Your task to perform on an android device: turn off translation in the chrome app Image 0: 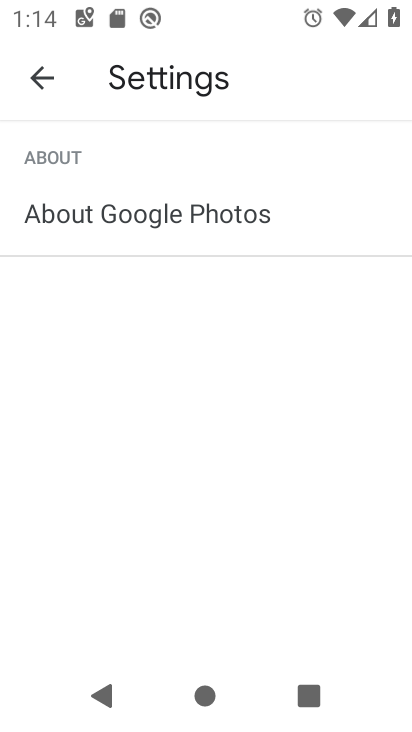
Step 0: press home button
Your task to perform on an android device: turn off translation in the chrome app Image 1: 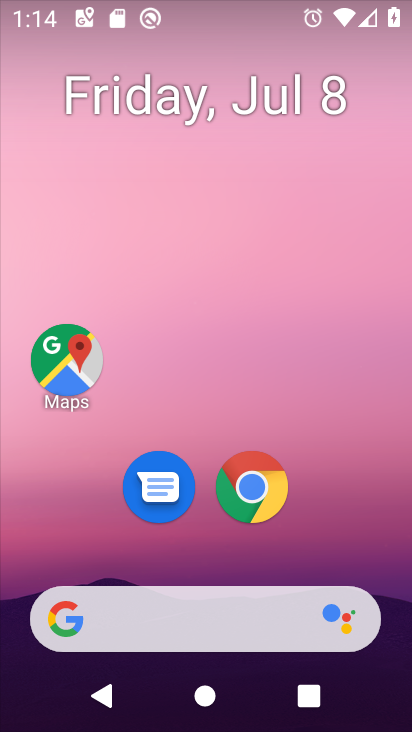
Step 1: drag from (367, 527) to (379, 118)
Your task to perform on an android device: turn off translation in the chrome app Image 2: 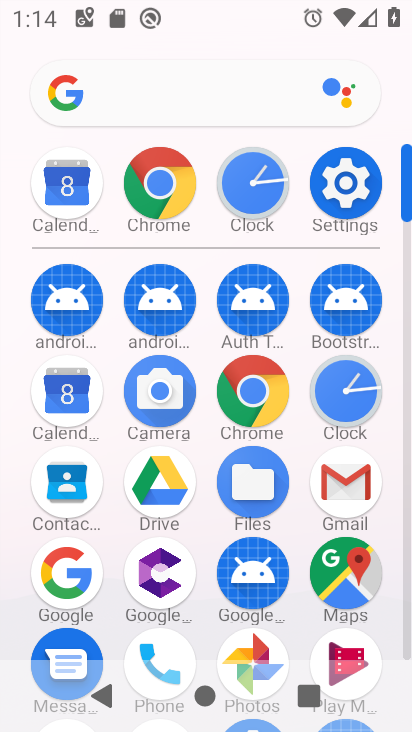
Step 2: click (261, 389)
Your task to perform on an android device: turn off translation in the chrome app Image 3: 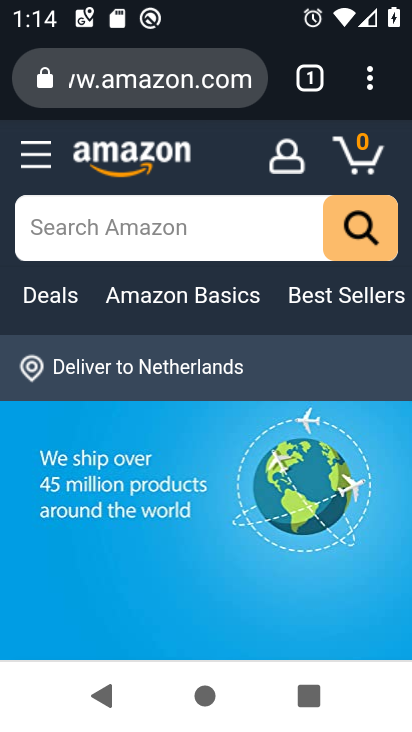
Step 3: click (370, 88)
Your task to perform on an android device: turn off translation in the chrome app Image 4: 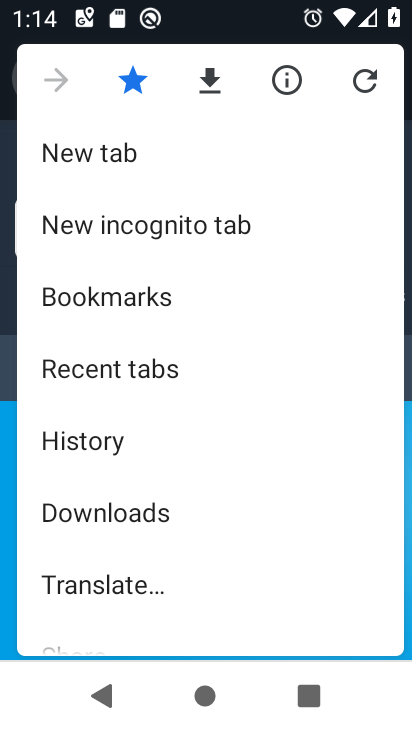
Step 4: drag from (311, 453) to (327, 361)
Your task to perform on an android device: turn off translation in the chrome app Image 5: 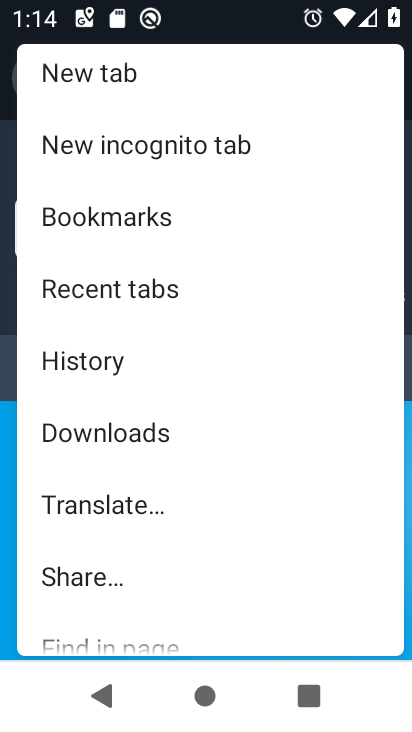
Step 5: drag from (326, 500) to (324, 416)
Your task to perform on an android device: turn off translation in the chrome app Image 6: 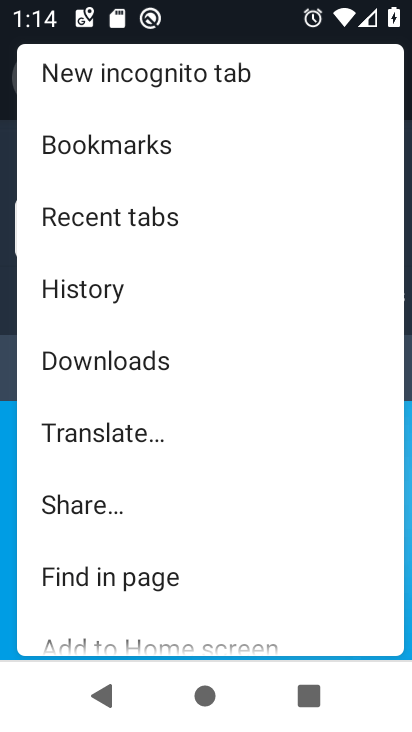
Step 6: drag from (315, 516) to (318, 409)
Your task to perform on an android device: turn off translation in the chrome app Image 7: 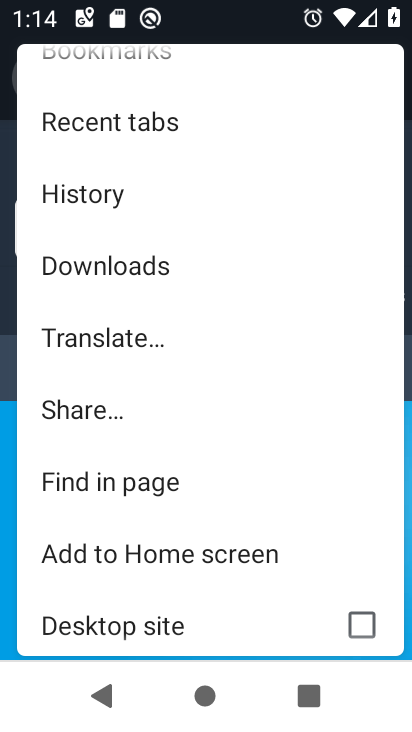
Step 7: drag from (309, 491) to (311, 373)
Your task to perform on an android device: turn off translation in the chrome app Image 8: 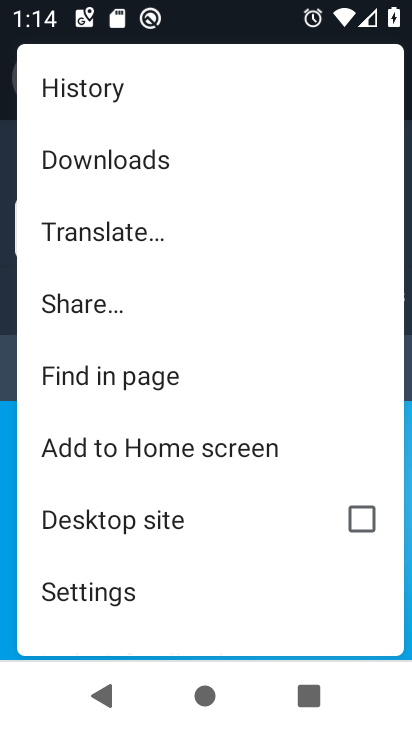
Step 8: drag from (292, 525) to (290, 393)
Your task to perform on an android device: turn off translation in the chrome app Image 9: 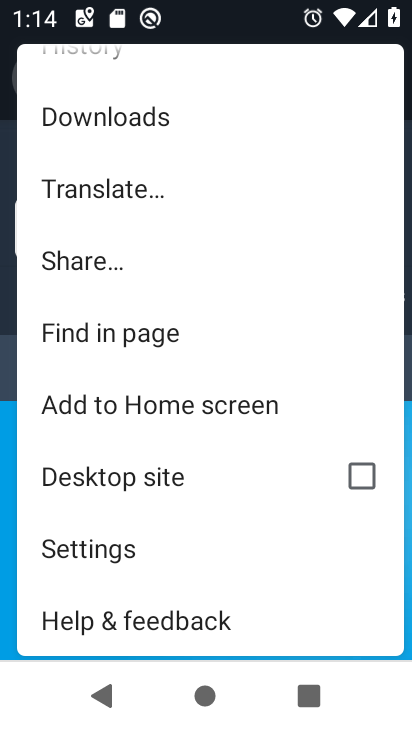
Step 9: click (241, 559)
Your task to perform on an android device: turn off translation in the chrome app Image 10: 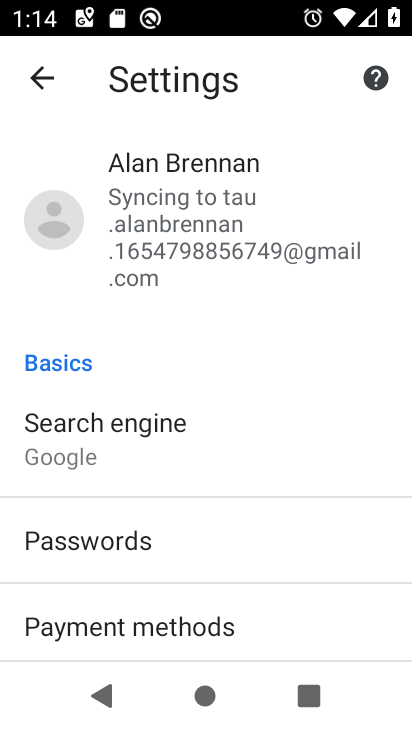
Step 10: drag from (348, 533) to (356, 437)
Your task to perform on an android device: turn off translation in the chrome app Image 11: 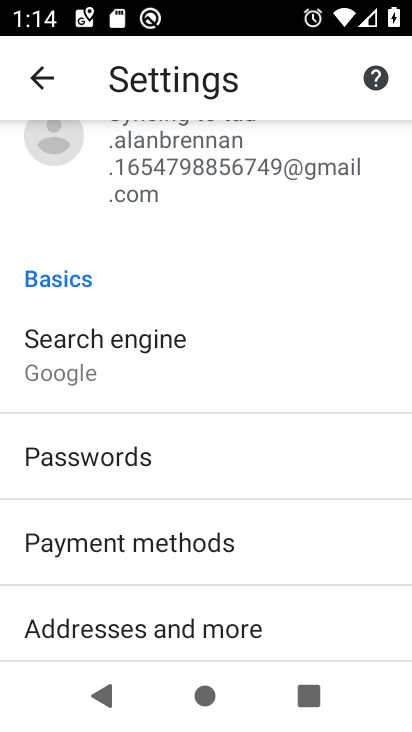
Step 11: drag from (338, 565) to (336, 450)
Your task to perform on an android device: turn off translation in the chrome app Image 12: 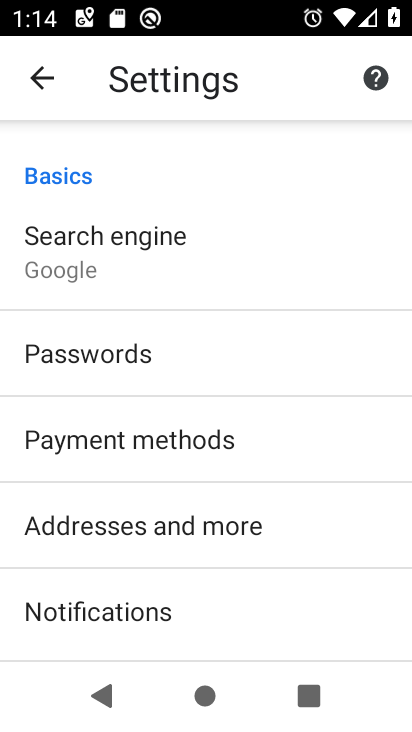
Step 12: drag from (316, 572) to (309, 457)
Your task to perform on an android device: turn off translation in the chrome app Image 13: 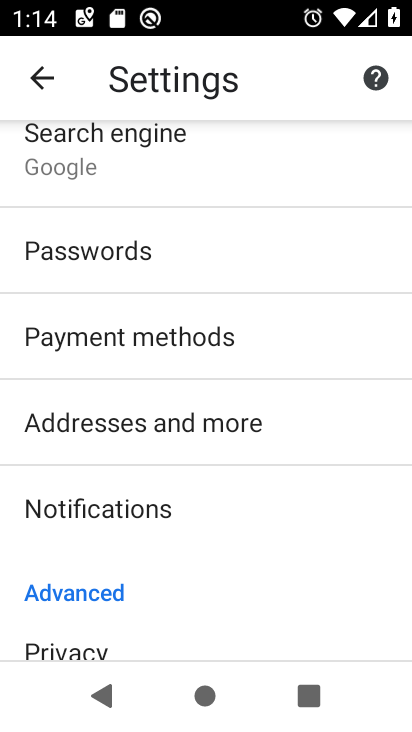
Step 13: drag from (307, 498) to (322, 407)
Your task to perform on an android device: turn off translation in the chrome app Image 14: 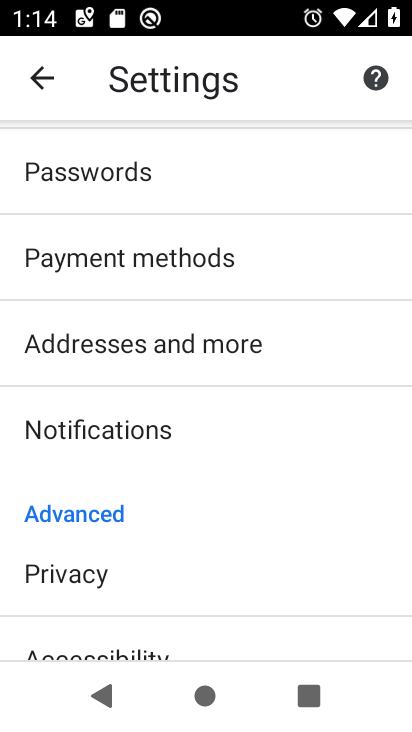
Step 14: drag from (329, 518) to (324, 367)
Your task to perform on an android device: turn off translation in the chrome app Image 15: 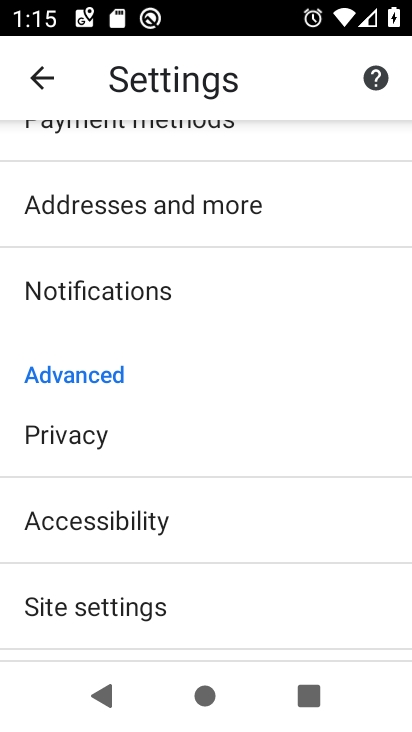
Step 15: drag from (324, 419) to (323, 317)
Your task to perform on an android device: turn off translation in the chrome app Image 16: 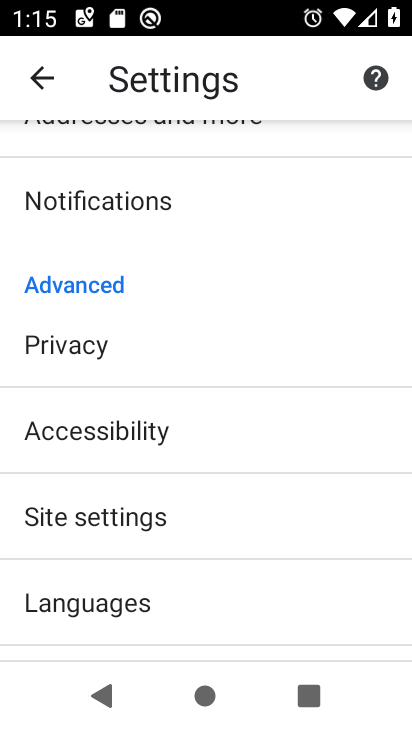
Step 16: drag from (262, 566) to (273, 407)
Your task to perform on an android device: turn off translation in the chrome app Image 17: 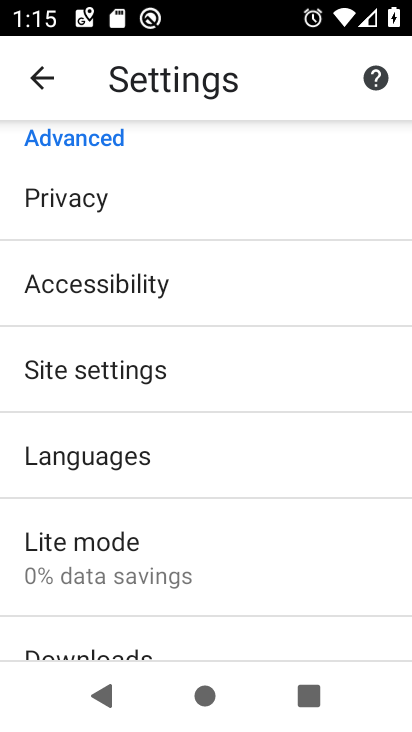
Step 17: drag from (310, 550) to (325, 412)
Your task to perform on an android device: turn off translation in the chrome app Image 18: 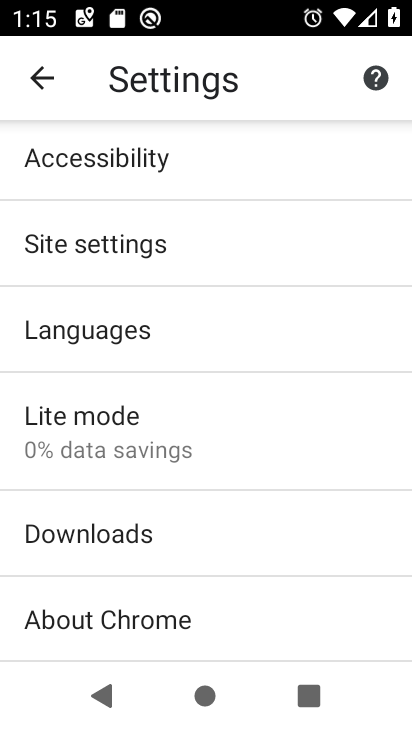
Step 18: click (187, 334)
Your task to perform on an android device: turn off translation in the chrome app Image 19: 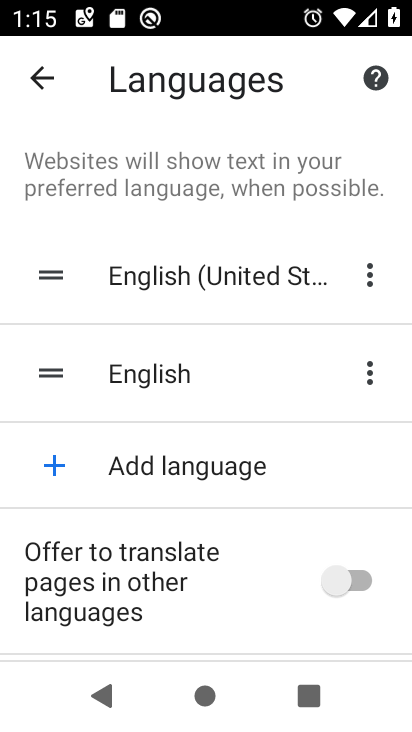
Step 19: task complete